Your task to perform on an android device: Go to Android settings Image 0: 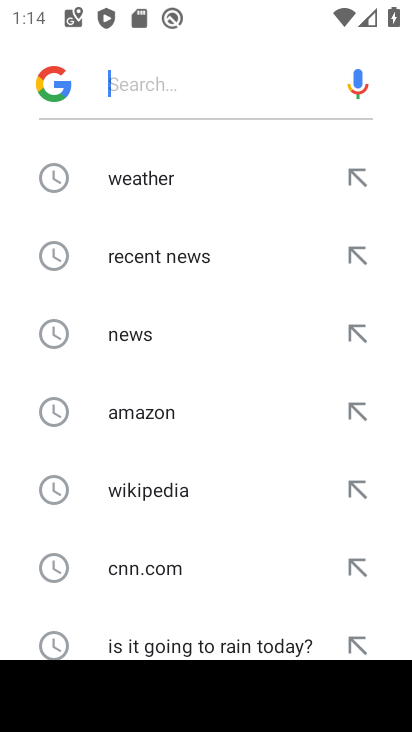
Step 0: press home button
Your task to perform on an android device: Go to Android settings Image 1: 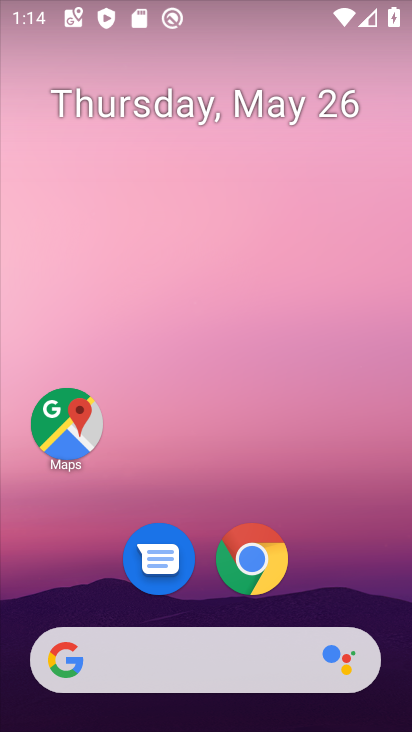
Step 1: drag from (204, 670) to (283, 106)
Your task to perform on an android device: Go to Android settings Image 2: 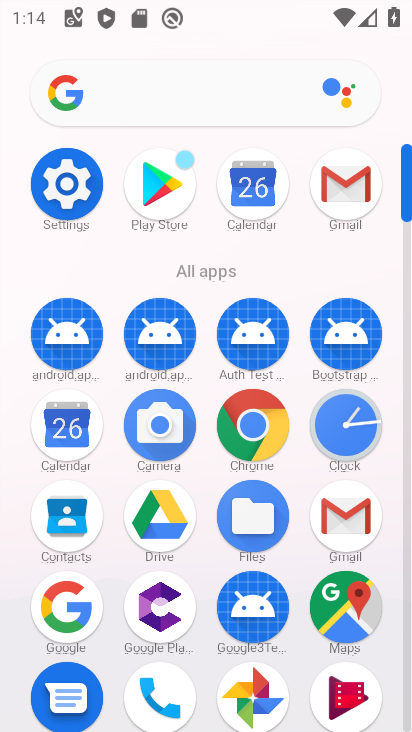
Step 2: click (66, 182)
Your task to perform on an android device: Go to Android settings Image 3: 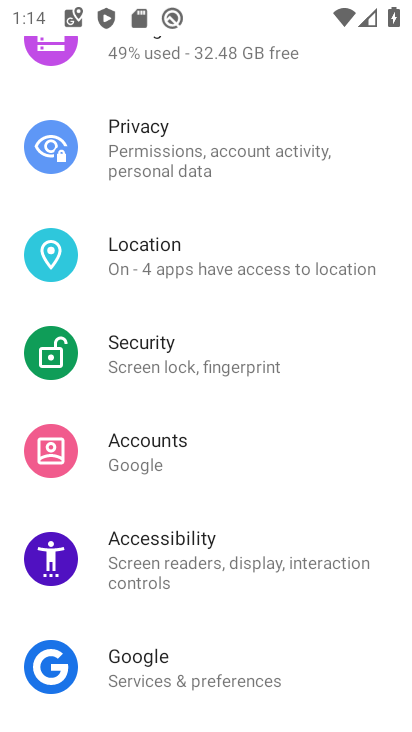
Step 3: task complete